Your task to perform on an android device: Go to Android settings Image 0: 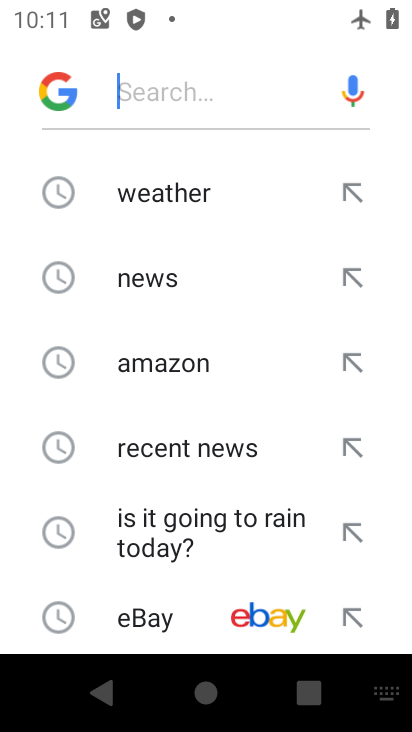
Step 0: press home button
Your task to perform on an android device: Go to Android settings Image 1: 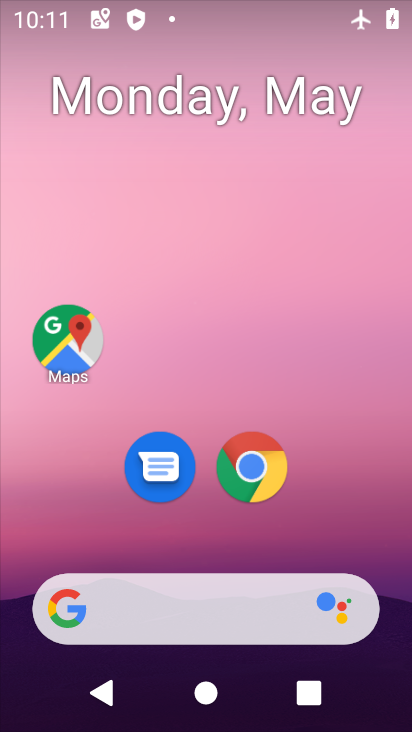
Step 1: drag from (385, 638) to (356, 144)
Your task to perform on an android device: Go to Android settings Image 2: 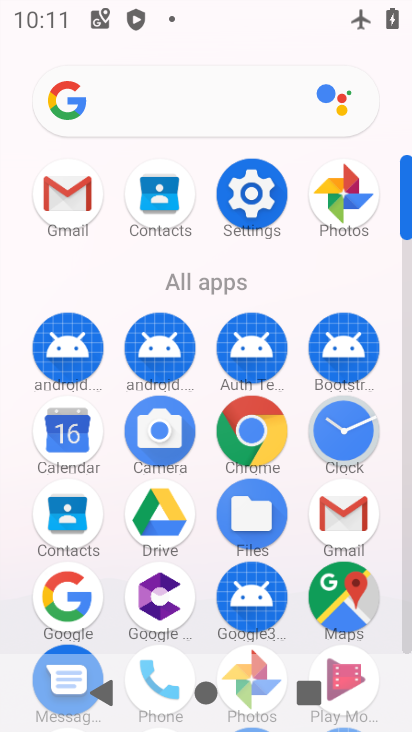
Step 2: click (406, 634)
Your task to perform on an android device: Go to Android settings Image 3: 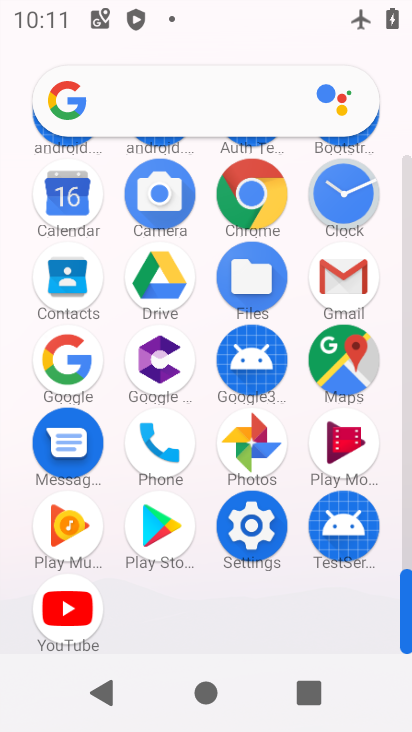
Step 3: click (251, 524)
Your task to perform on an android device: Go to Android settings Image 4: 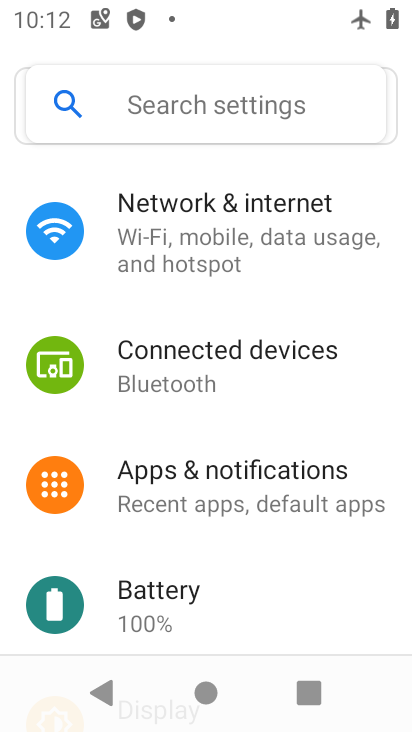
Step 4: drag from (275, 584) to (317, 137)
Your task to perform on an android device: Go to Android settings Image 5: 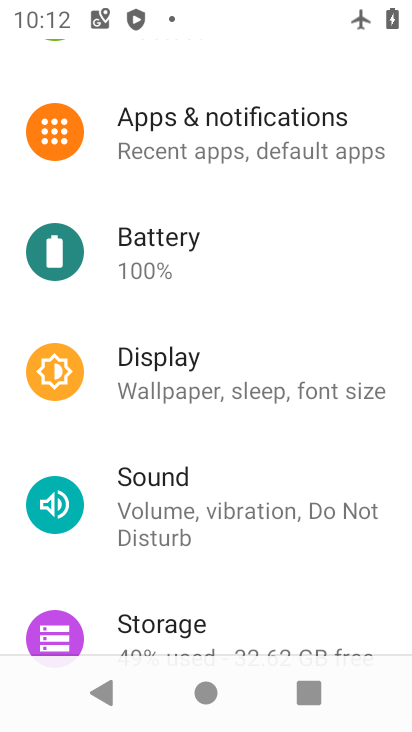
Step 5: drag from (327, 620) to (367, 147)
Your task to perform on an android device: Go to Android settings Image 6: 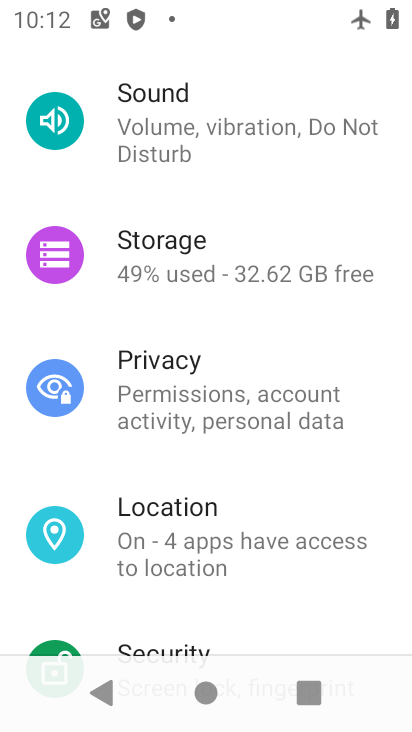
Step 6: drag from (319, 631) to (378, 151)
Your task to perform on an android device: Go to Android settings Image 7: 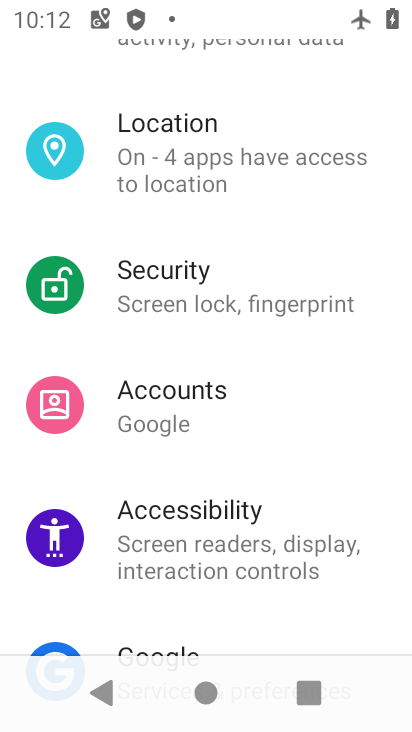
Step 7: drag from (330, 637) to (327, 88)
Your task to perform on an android device: Go to Android settings Image 8: 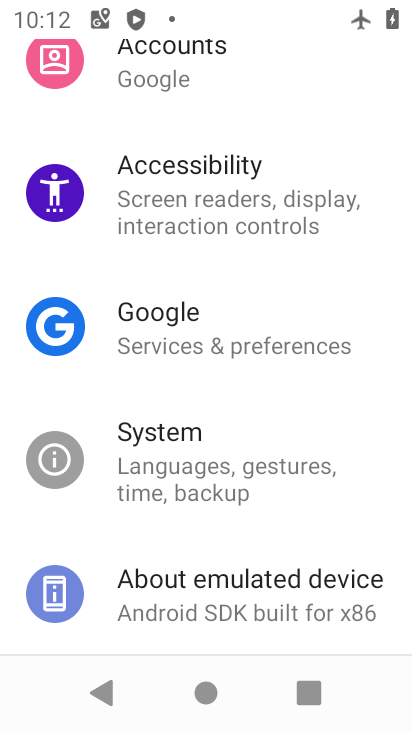
Step 8: click (236, 601)
Your task to perform on an android device: Go to Android settings Image 9: 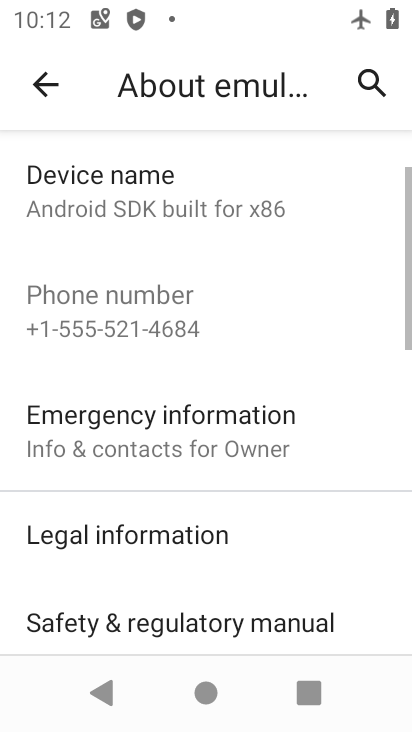
Step 9: task complete